Your task to perform on an android device: open app "HBO Max: Stream TV & Movies" Image 0: 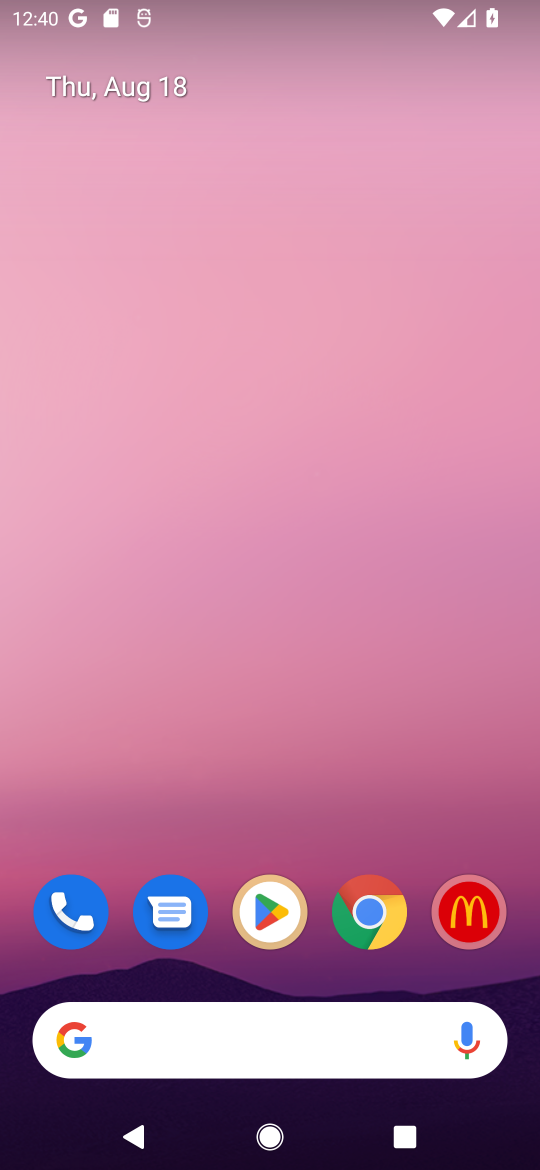
Step 0: click (286, 907)
Your task to perform on an android device: open app "HBO Max: Stream TV & Movies" Image 1: 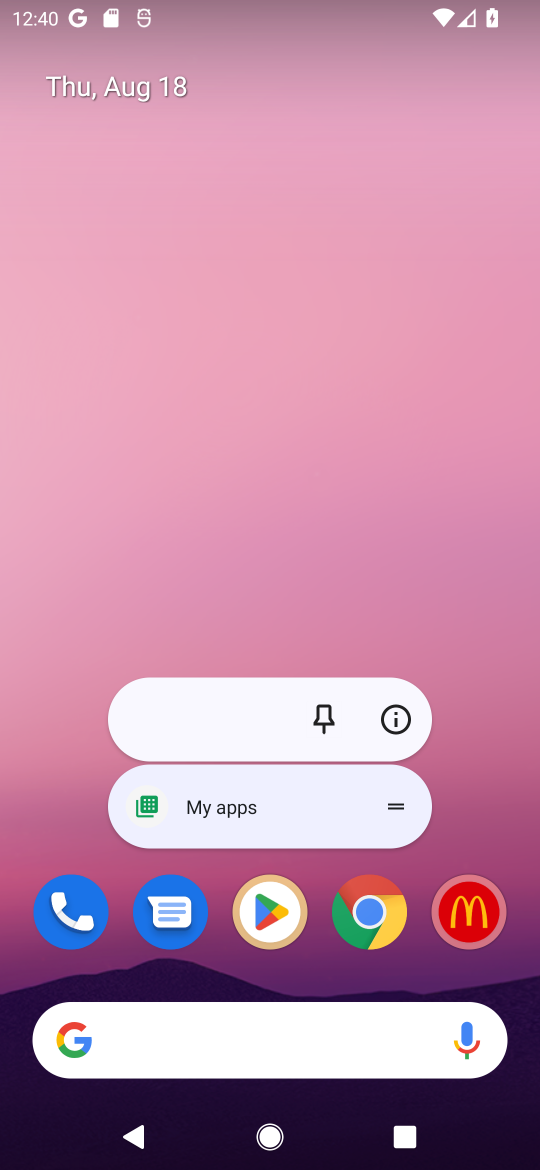
Step 1: click (264, 891)
Your task to perform on an android device: open app "HBO Max: Stream TV & Movies" Image 2: 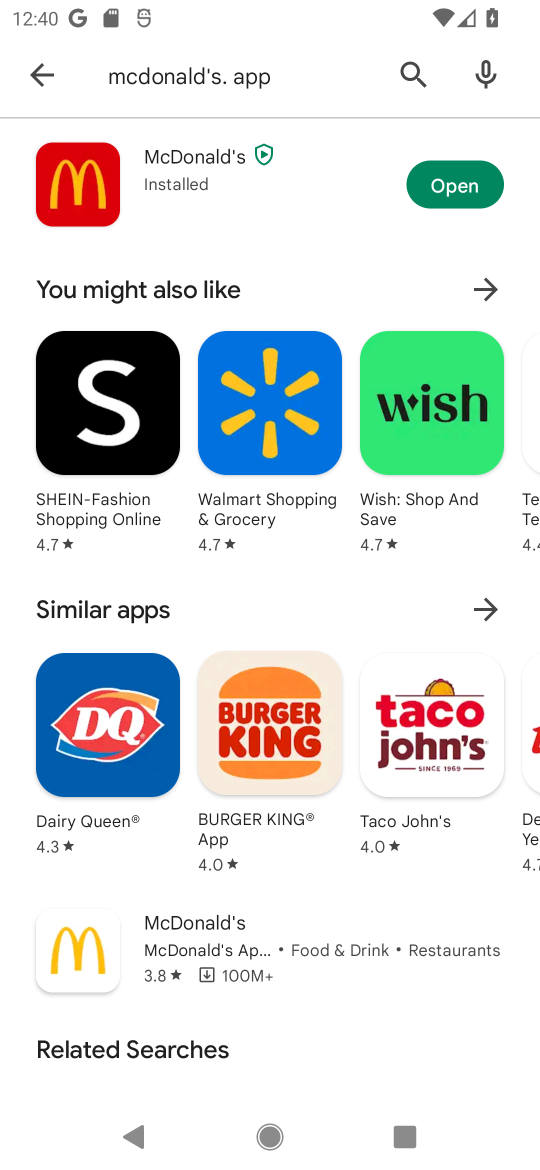
Step 2: click (411, 72)
Your task to perform on an android device: open app "HBO Max: Stream TV & Movies" Image 3: 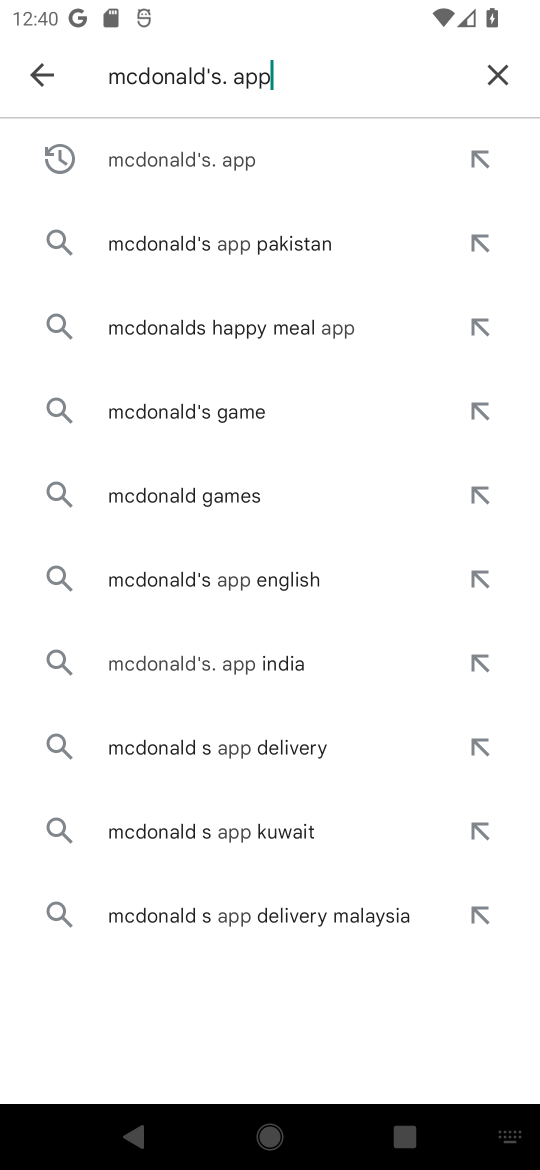
Step 3: click (484, 75)
Your task to perform on an android device: open app "HBO Max: Stream TV & Movies" Image 4: 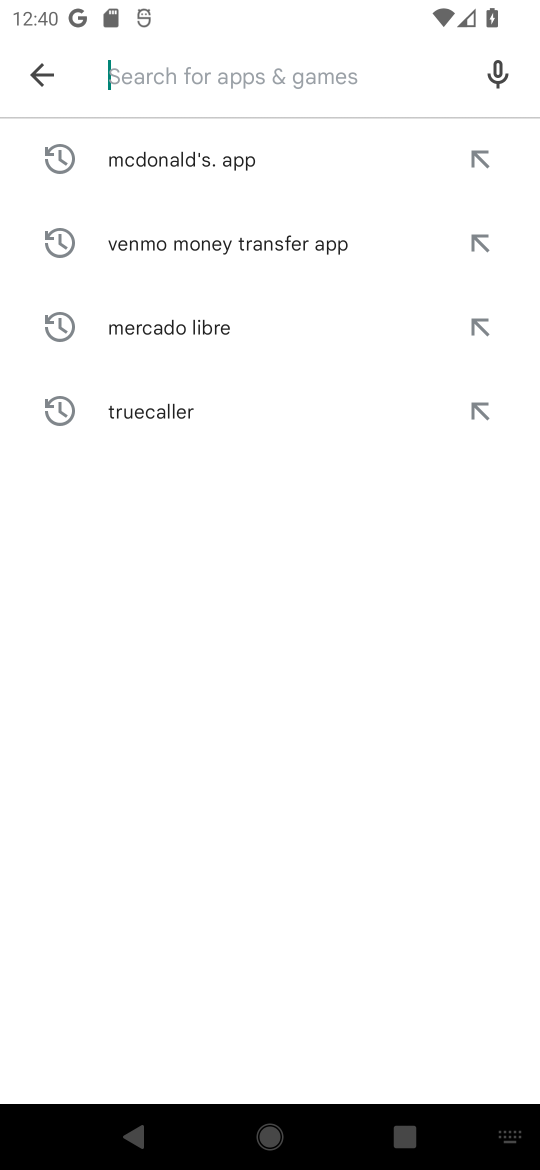
Step 4: type "hbo"
Your task to perform on an android device: open app "HBO Max: Stream TV & Movies" Image 5: 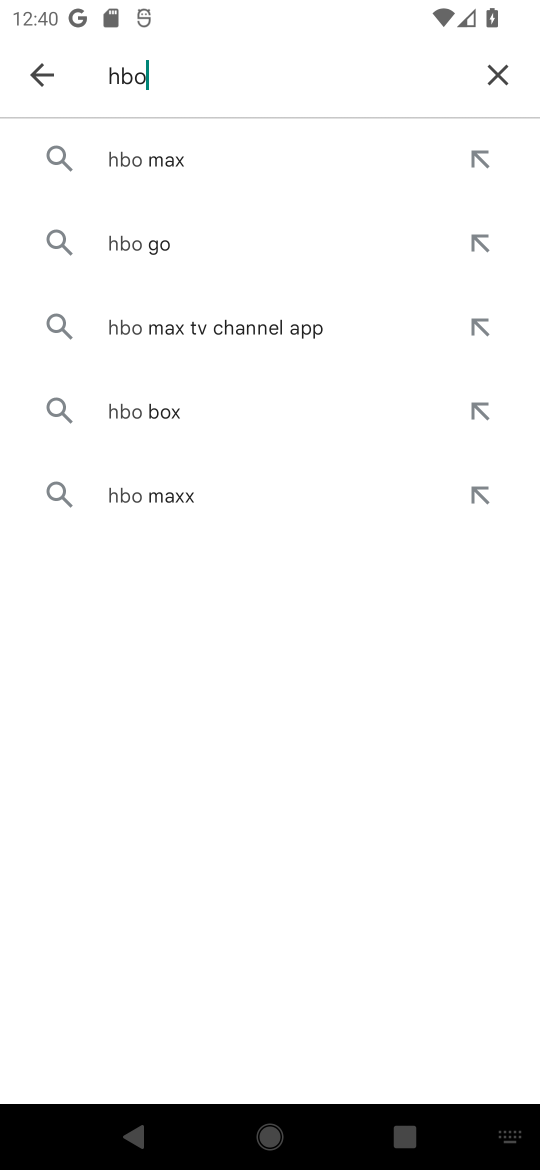
Step 5: click (127, 162)
Your task to perform on an android device: open app "HBO Max: Stream TV & Movies" Image 6: 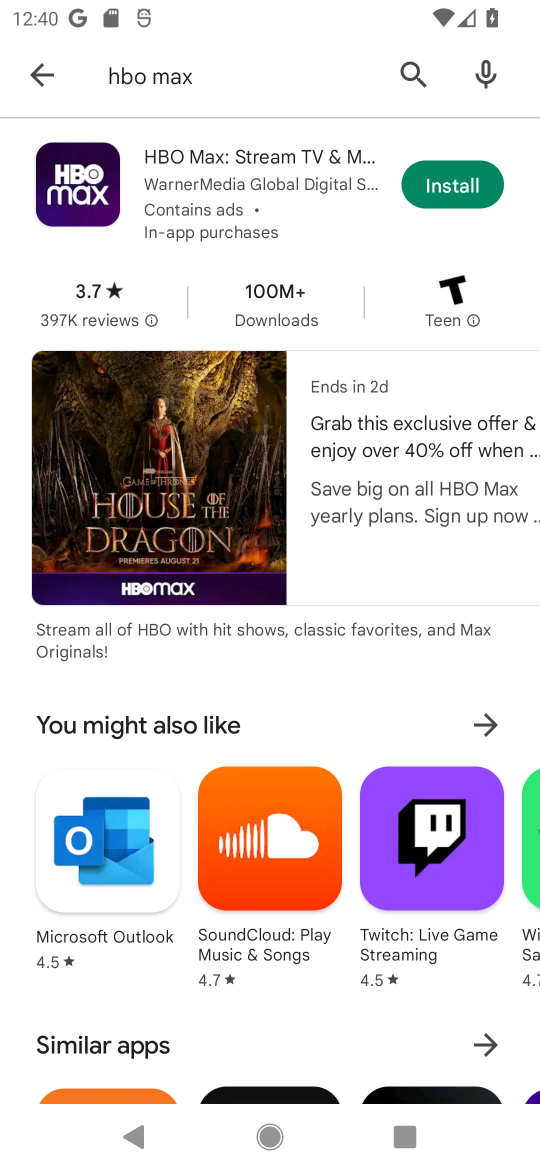
Step 6: click (465, 194)
Your task to perform on an android device: open app "HBO Max: Stream TV & Movies" Image 7: 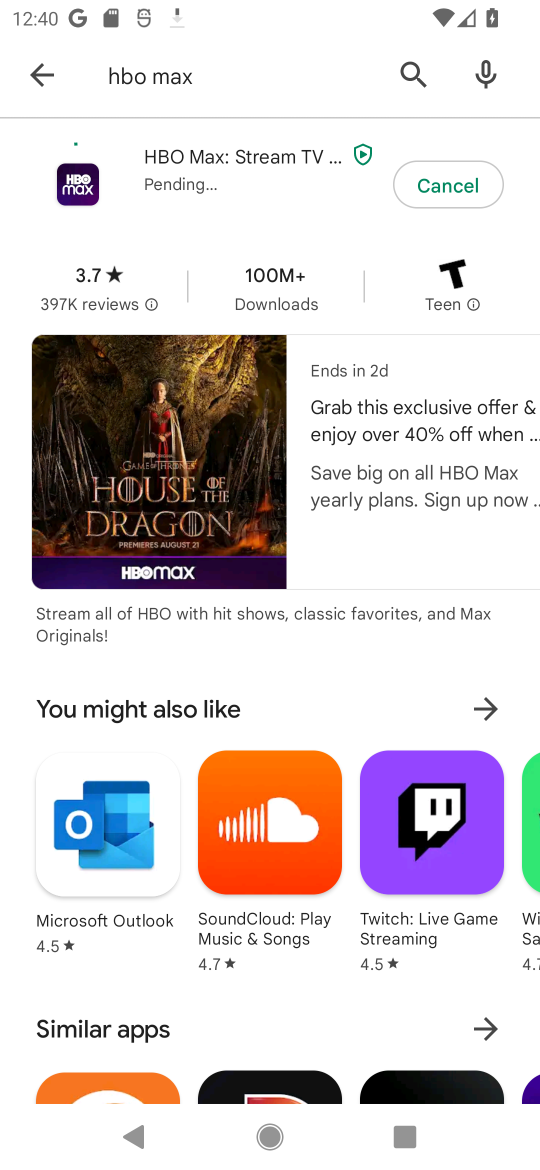
Step 7: click (423, 183)
Your task to perform on an android device: open app "HBO Max: Stream TV & Movies" Image 8: 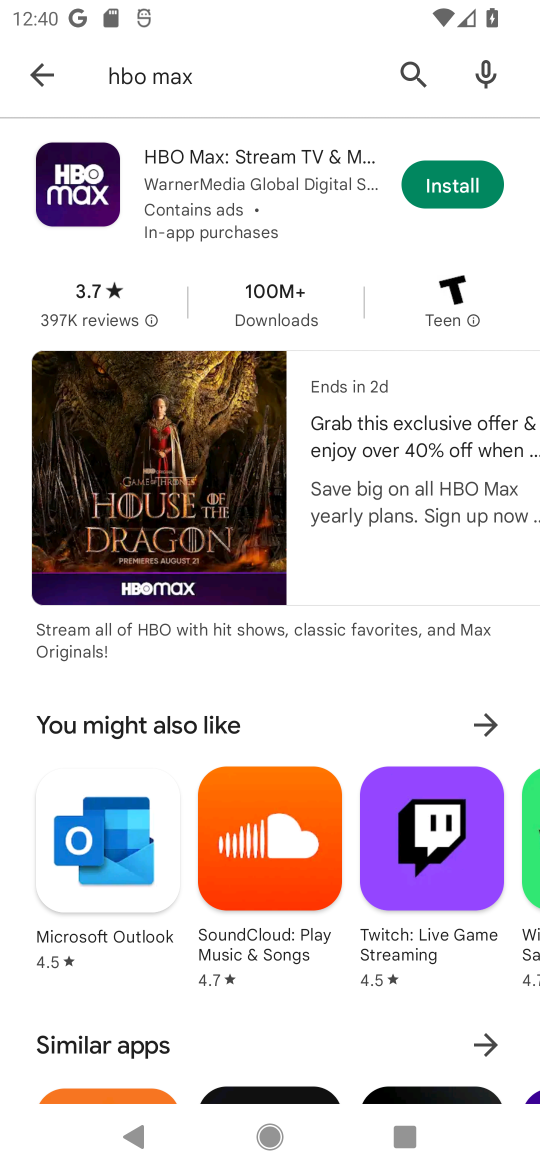
Step 8: task complete